Your task to perform on an android device: Open calendar and show me the third week of next month Image 0: 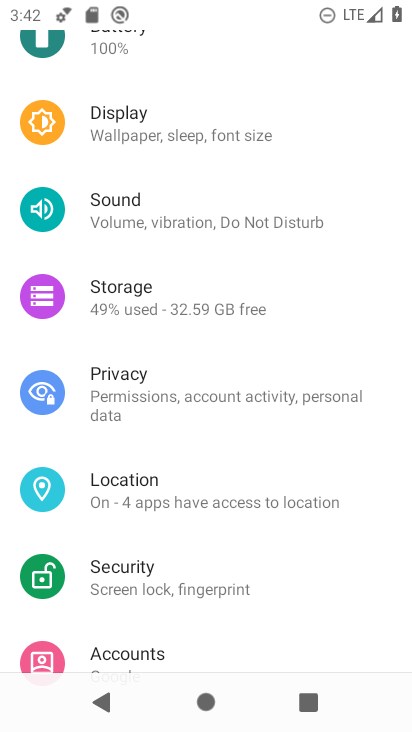
Step 0: press home button
Your task to perform on an android device: Open calendar and show me the third week of next month Image 1: 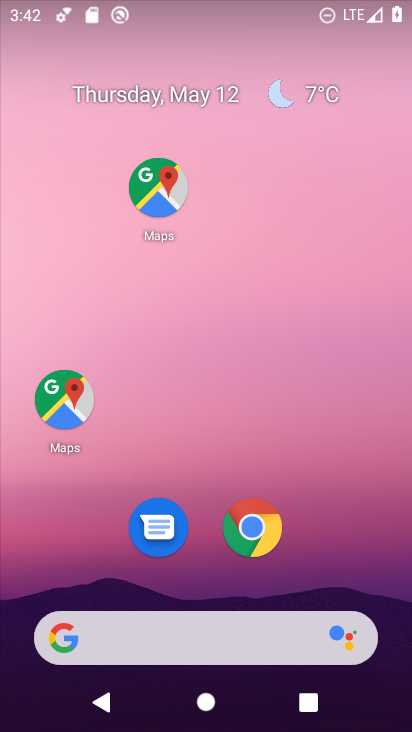
Step 1: drag from (222, 576) to (237, 28)
Your task to perform on an android device: Open calendar and show me the third week of next month Image 2: 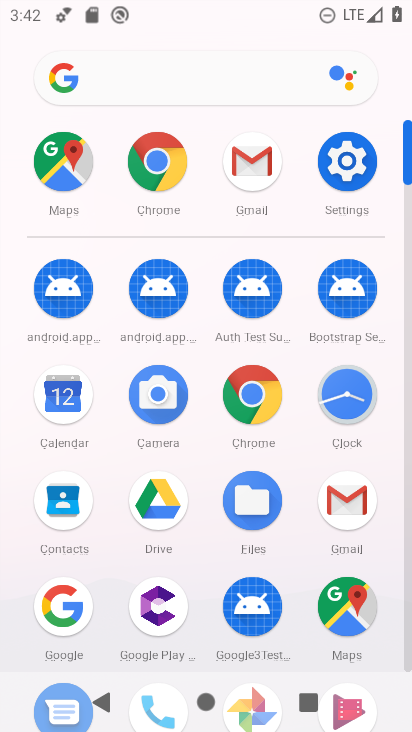
Step 2: click (75, 389)
Your task to perform on an android device: Open calendar and show me the third week of next month Image 3: 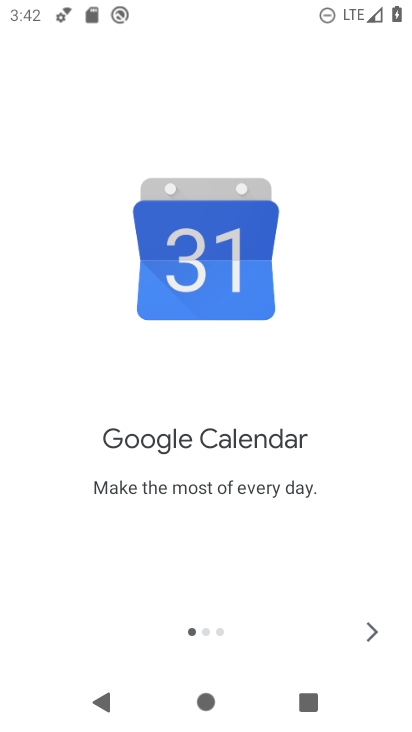
Step 3: click (372, 637)
Your task to perform on an android device: Open calendar and show me the third week of next month Image 4: 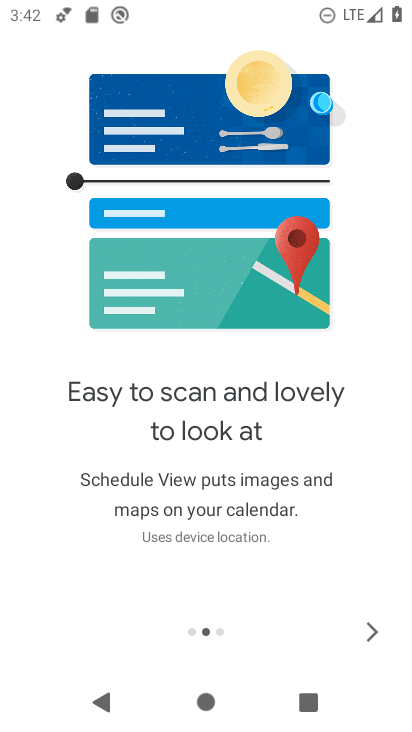
Step 4: click (372, 635)
Your task to perform on an android device: Open calendar and show me the third week of next month Image 5: 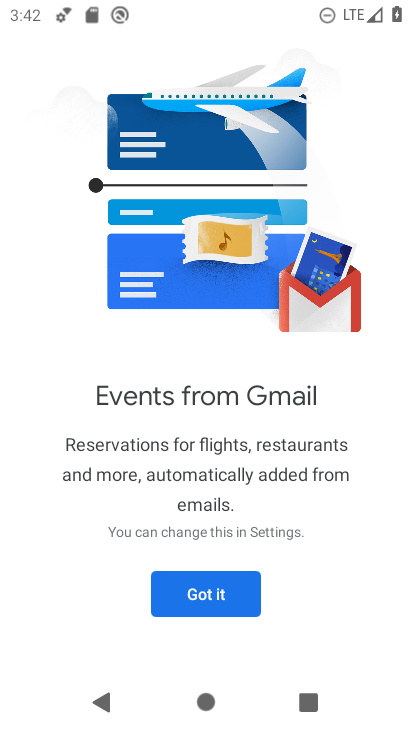
Step 5: click (222, 587)
Your task to perform on an android device: Open calendar and show me the third week of next month Image 6: 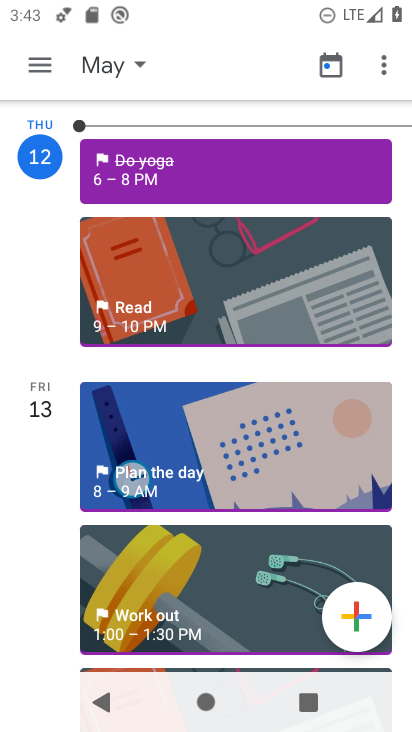
Step 6: click (38, 60)
Your task to perform on an android device: Open calendar and show me the third week of next month Image 7: 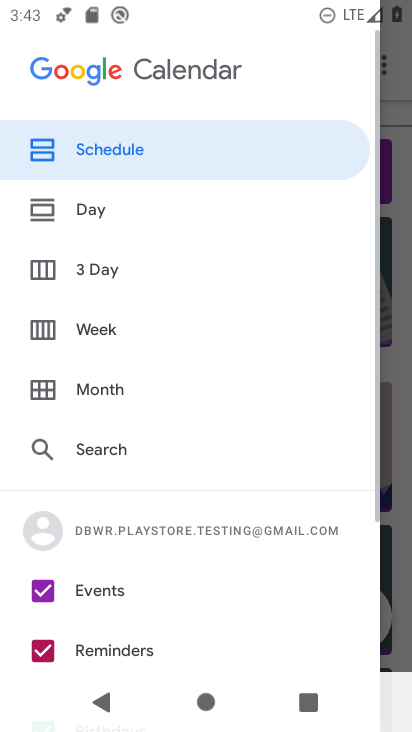
Step 7: click (106, 324)
Your task to perform on an android device: Open calendar and show me the third week of next month Image 8: 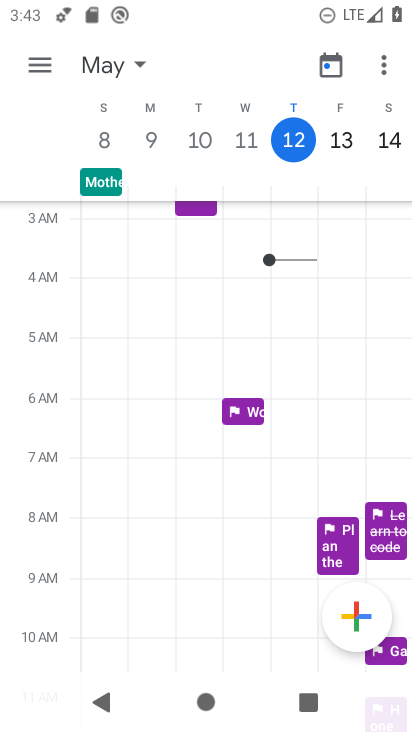
Step 8: task complete